Your task to perform on an android device: turn off location Image 0: 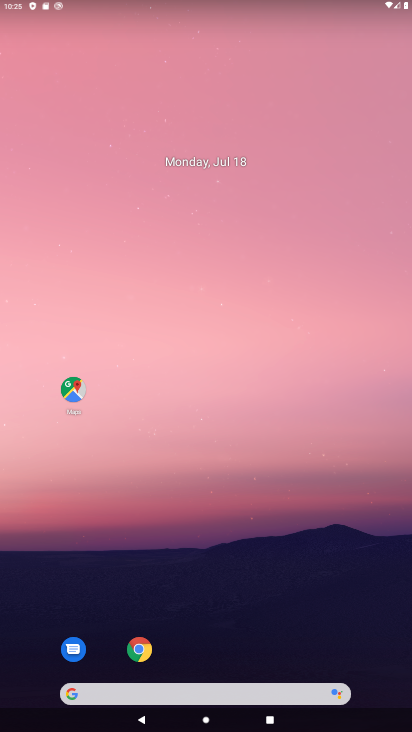
Step 0: drag from (237, 577) to (164, 156)
Your task to perform on an android device: turn off location Image 1: 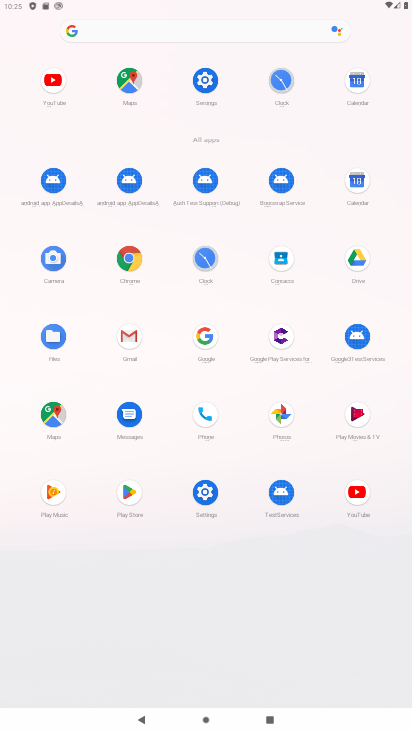
Step 1: click (200, 82)
Your task to perform on an android device: turn off location Image 2: 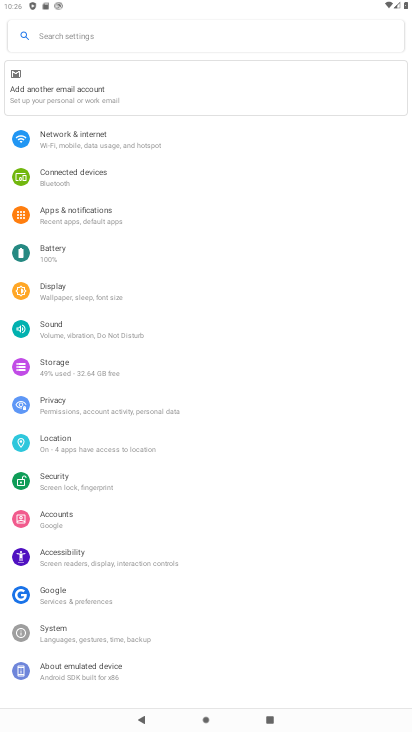
Step 2: click (55, 440)
Your task to perform on an android device: turn off location Image 3: 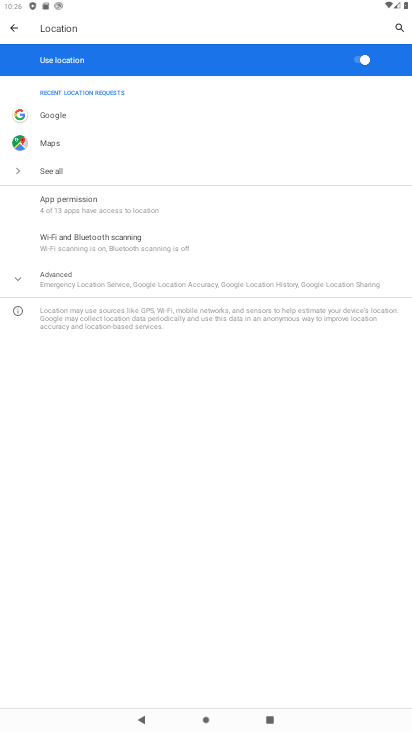
Step 3: click (366, 61)
Your task to perform on an android device: turn off location Image 4: 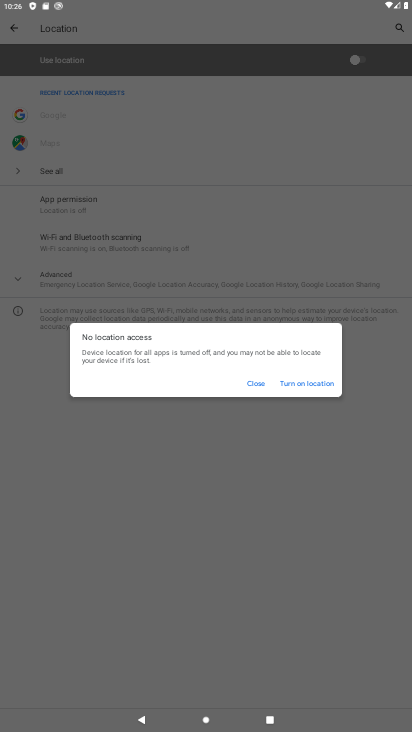
Step 4: click (259, 380)
Your task to perform on an android device: turn off location Image 5: 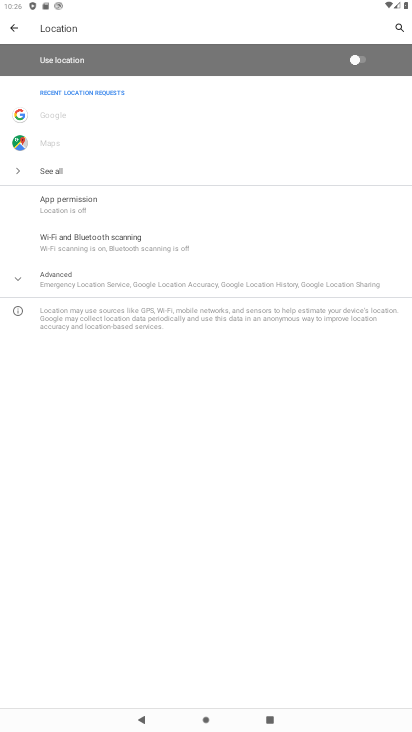
Step 5: task complete